Your task to perform on an android device: When is my next meeting? Image 0: 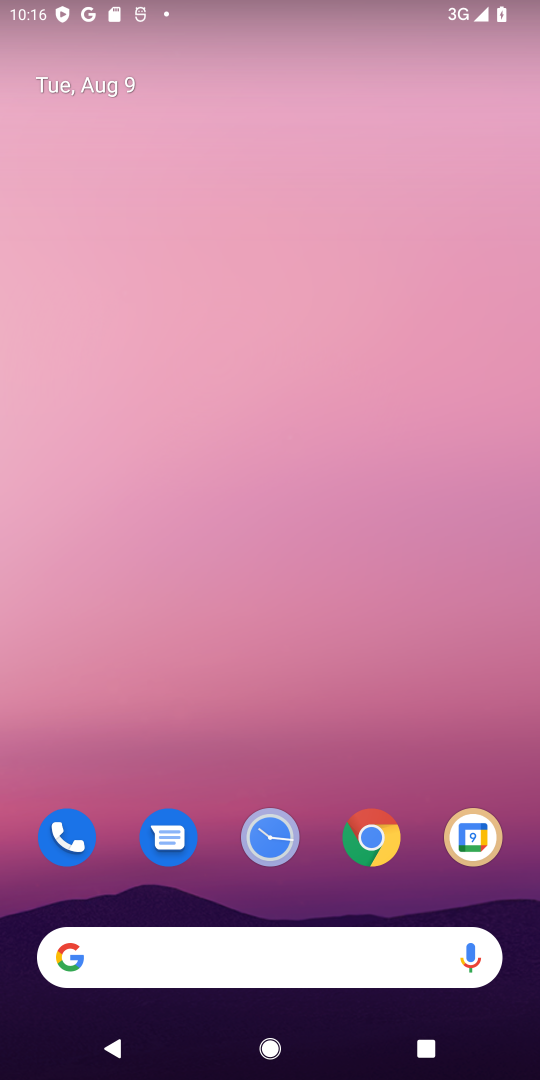
Step 0: drag from (334, 768) to (335, 179)
Your task to perform on an android device: When is my next meeting? Image 1: 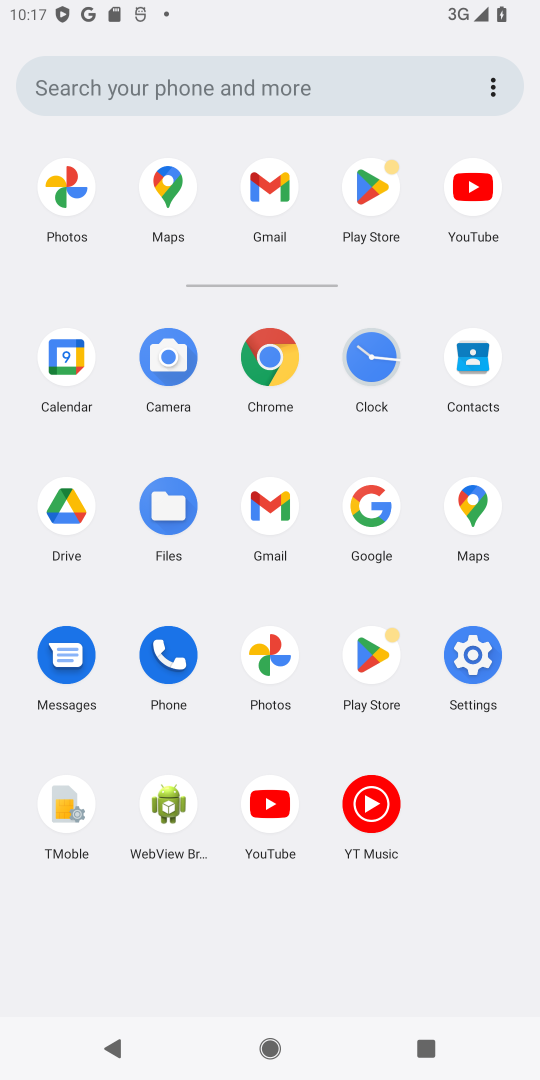
Step 1: click (373, 501)
Your task to perform on an android device: When is my next meeting? Image 2: 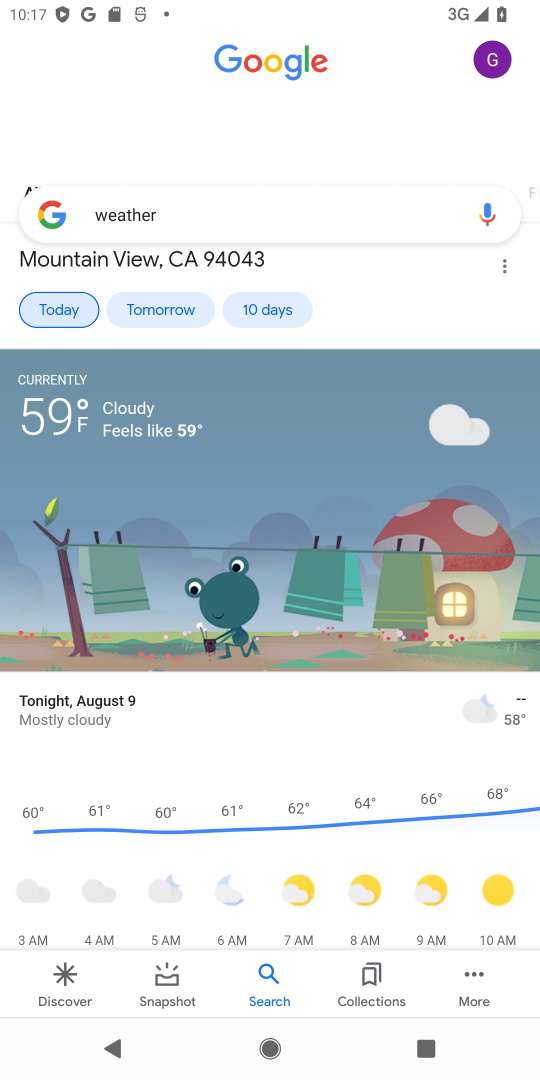
Step 2: press home button
Your task to perform on an android device: When is my next meeting? Image 3: 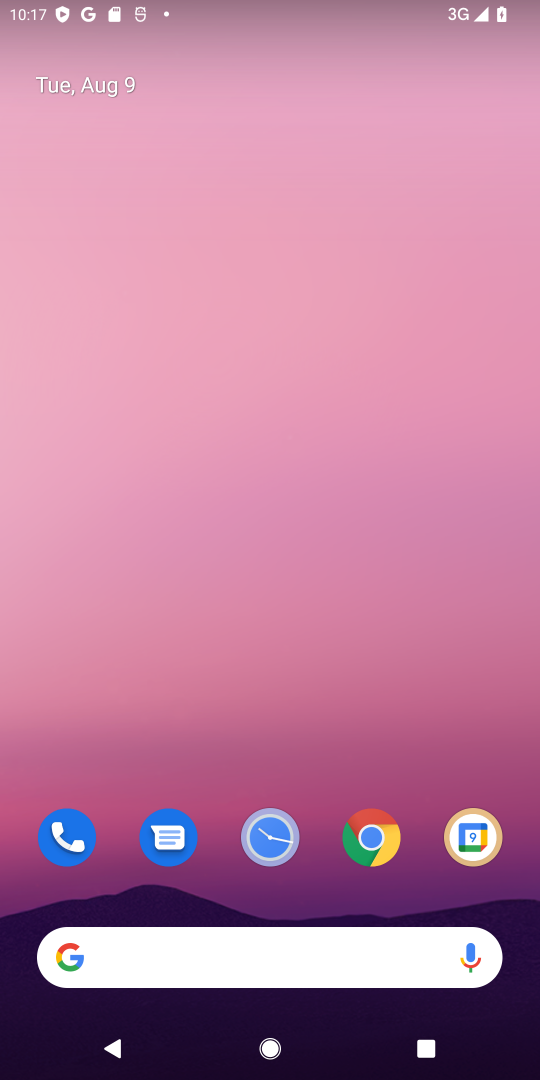
Step 3: drag from (324, 905) to (306, 71)
Your task to perform on an android device: When is my next meeting? Image 4: 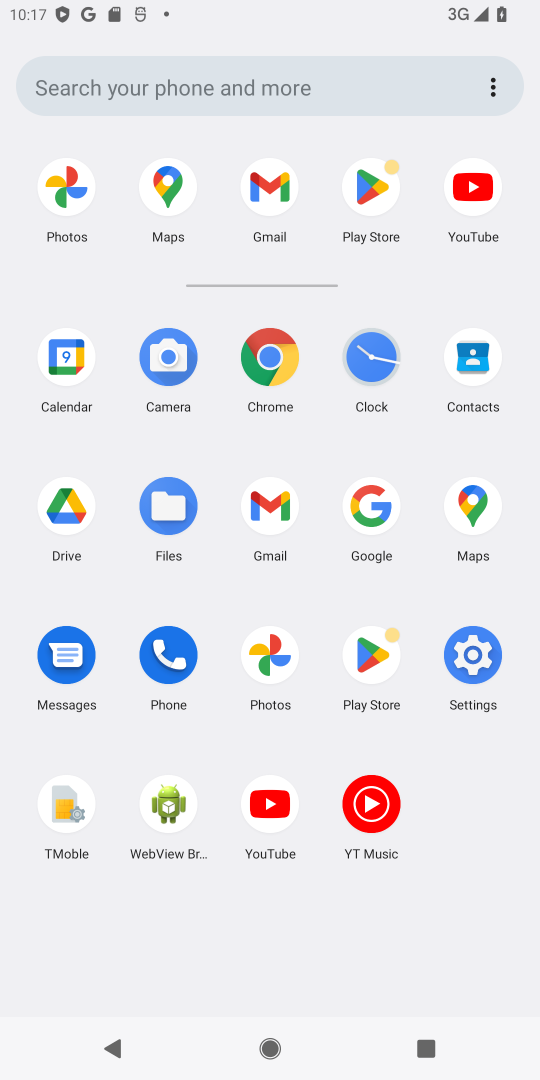
Step 4: click (66, 370)
Your task to perform on an android device: When is my next meeting? Image 5: 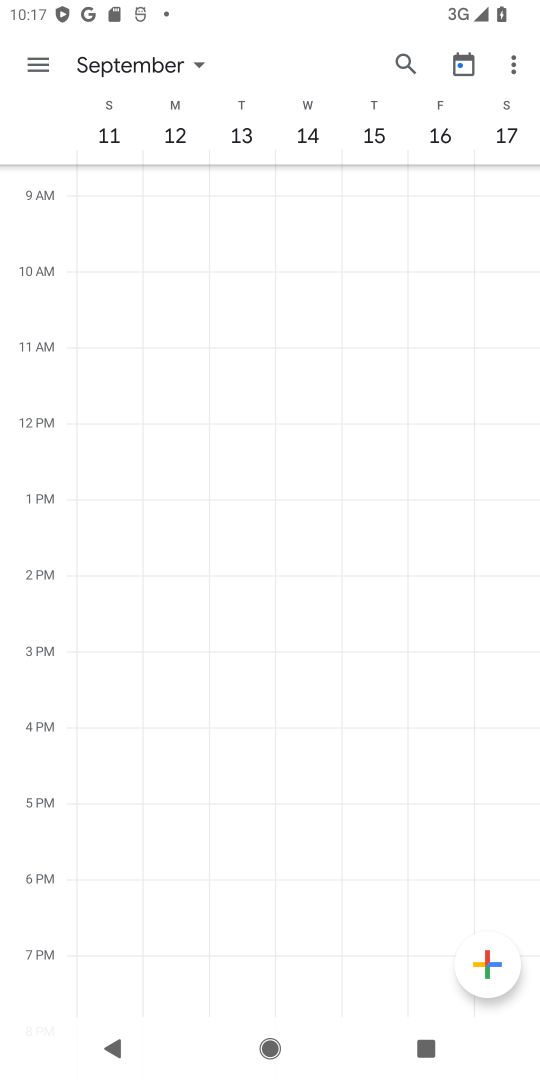
Step 5: click (202, 60)
Your task to perform on an android device: When is my next meeting? Image 6: 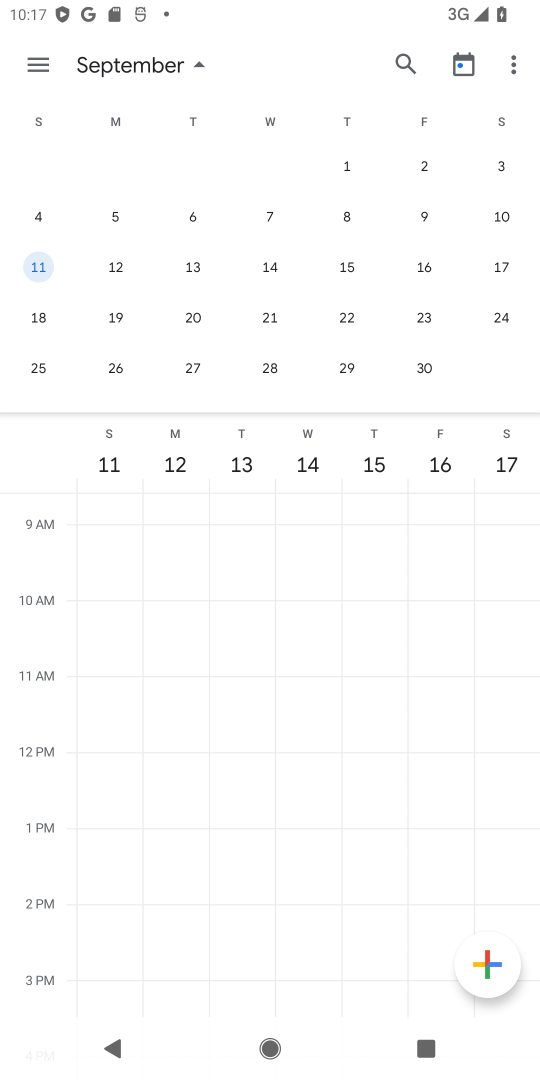
Step 6: drag from (63, 286) to (412, 251)
Your task to perform on an android device: When is my next meeting? Image 7: 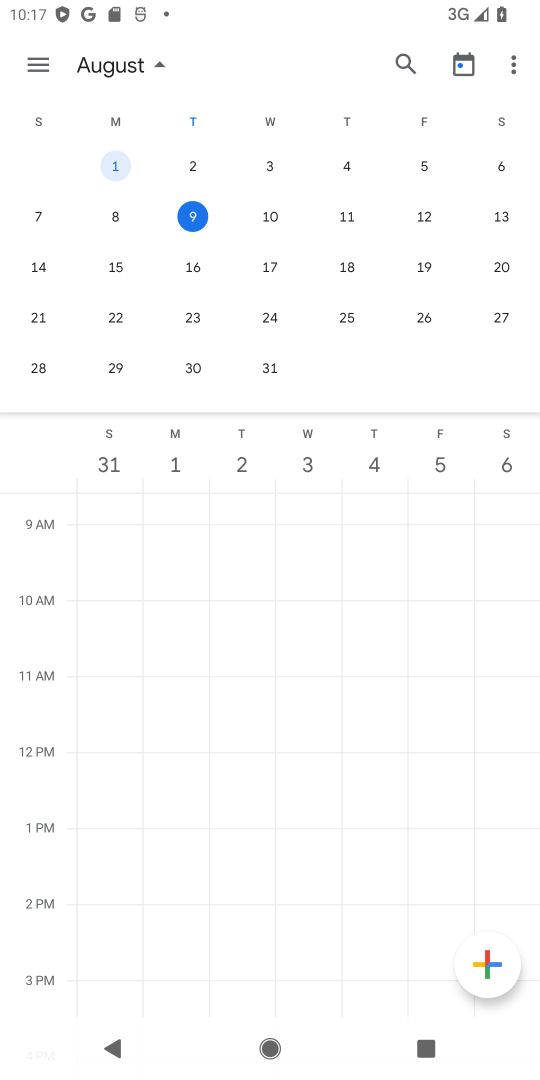
Step 7: click (191, 219)
Your task to perform on an android device: When is my next meeting? Image 8: 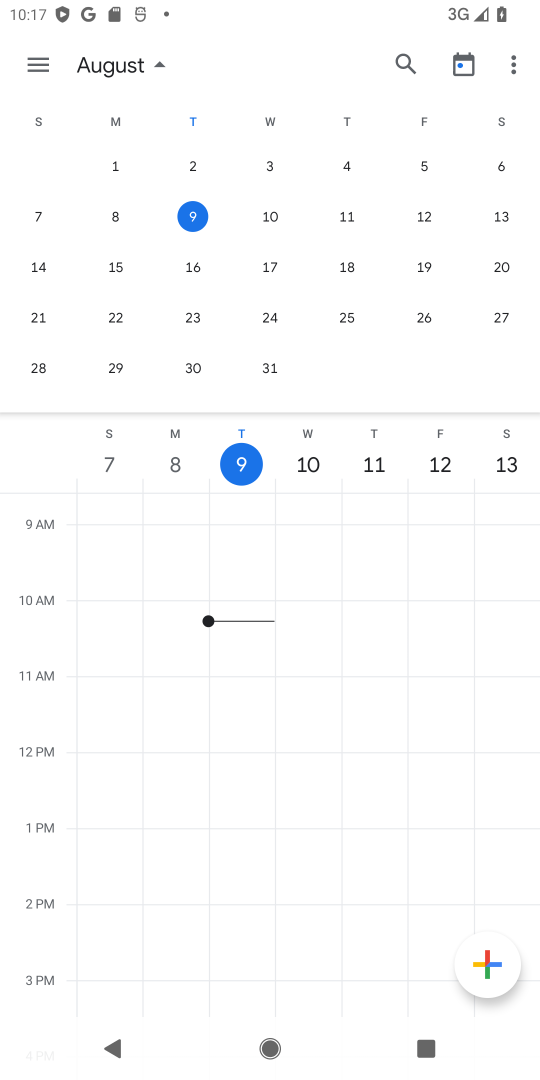
Step 8: click (248, 462)
Your task to perform on an android device: When is my next meeting? Image 9: 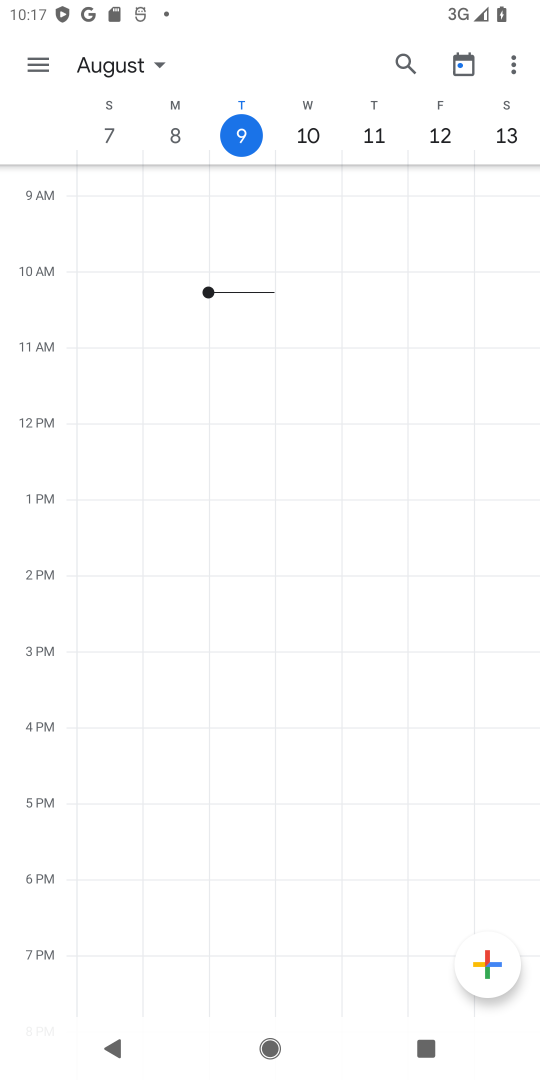
Step 9: task complete